Your task to perform on an android device: Search for seafood restaurants on Google Maps Image 0: 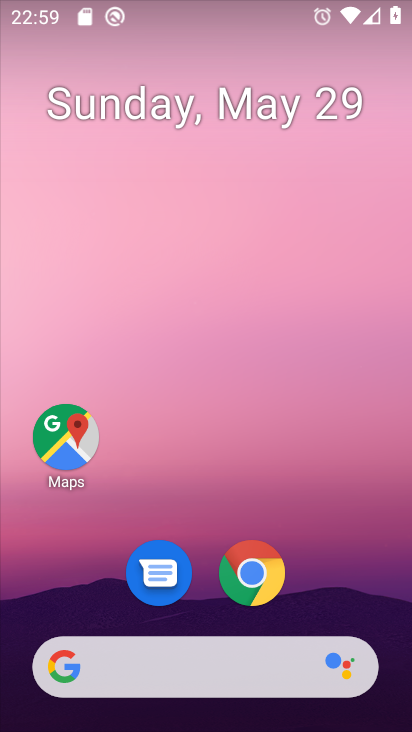
Step 0: click (58, 435)
Your task to perform on an android device: Search for seafood restaurants on Google Maps Image 1: 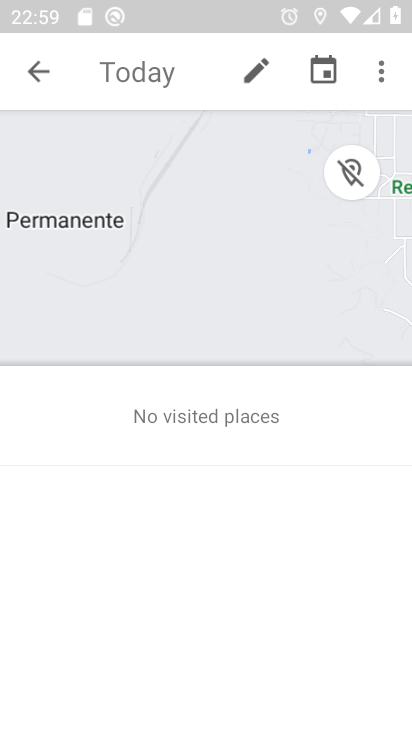
Step 1: click (44, 74)
Your task to perform on an android device: Search for seafood restaurants on Google Maps Image 2: 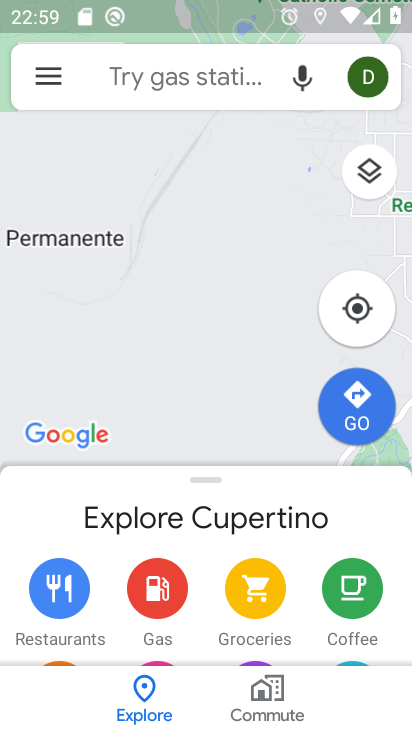
Step 2: click (111, 81)
Your task to perform on an android device: Search for seafood restaurants on Google Maps Image 3: 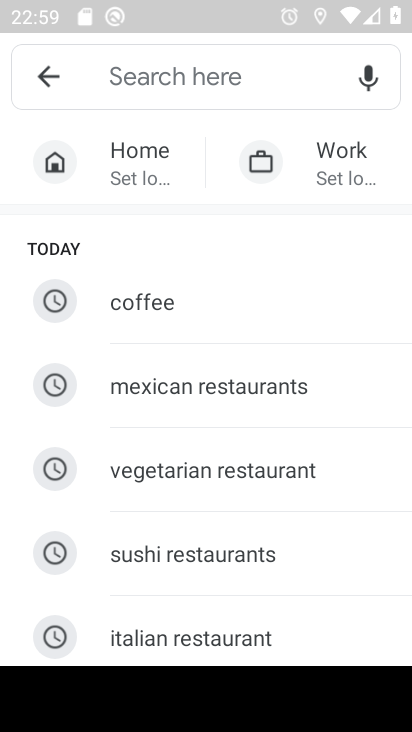
Step 3: drag from (206, 495) to (225, 132)
Your task to perform on an android device: Search for seafood restaurants on Google Maps Image 4: 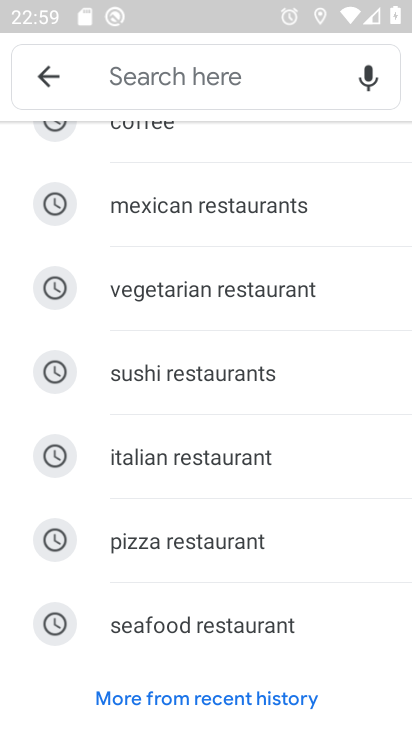
Step 4: click (227, 626)
Your task to perform on an android device: Search for seafood restaurants on Google Maps Image 5: 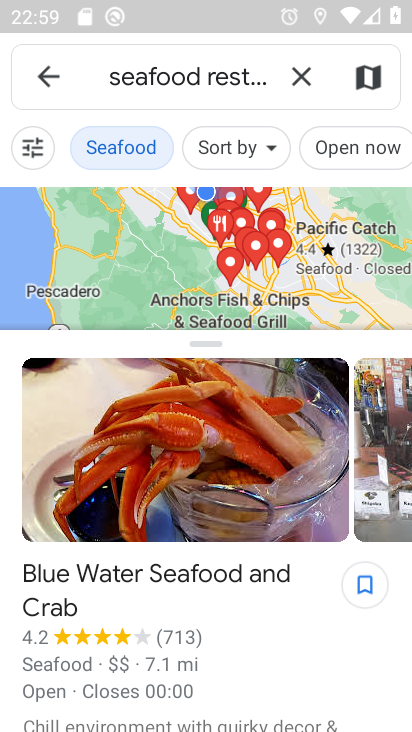
Step 5: task complete